Your task to perform on an android device: See recent photos Image 0: 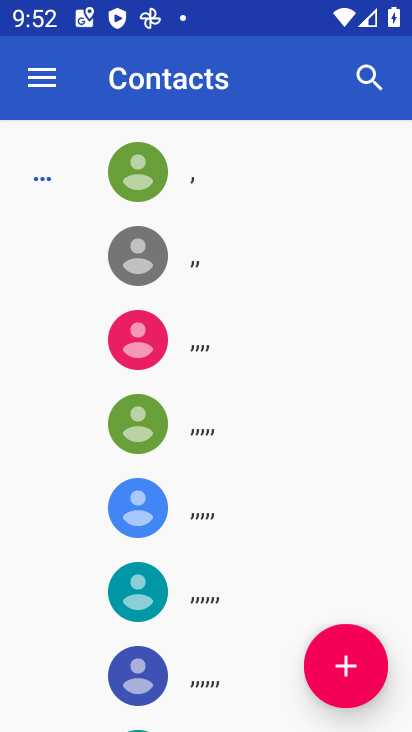
Step 0: press home button
Your task to perform on an android device: See recent photos Image 1: 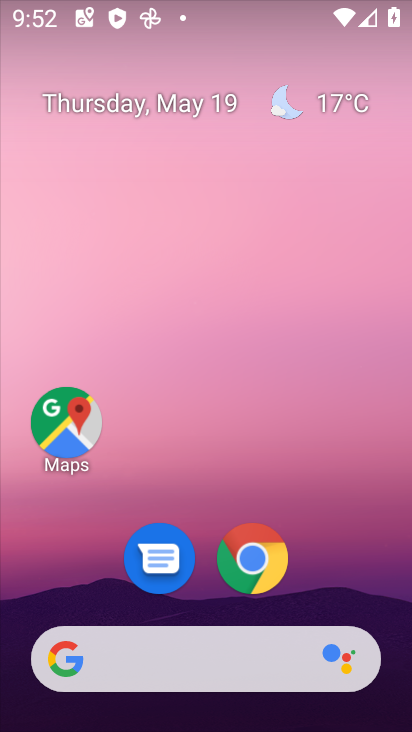
Step 1: drag from (204, 725) to (163, 187)
Your task to perform on an android device: See recent photos Image 2: 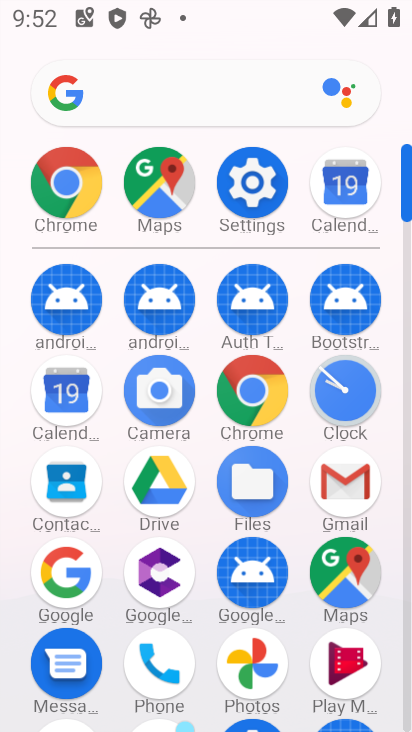
Step 2: click (254, 640)
Your task to perform on an android device: See recent photos Image 3: 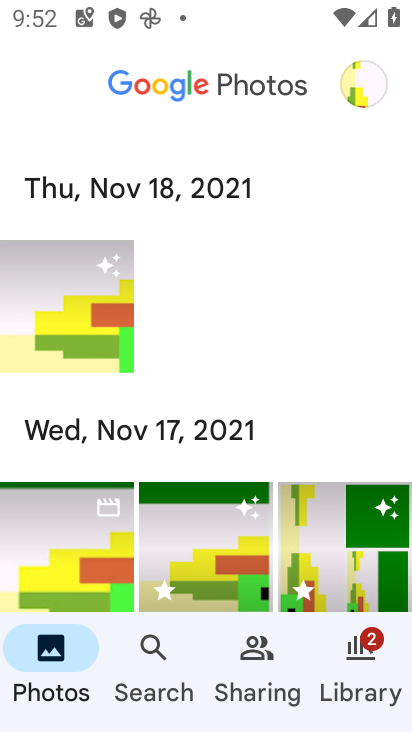
Step 3: click (61, 295)
Your task to perform on an android device: See recent photos Image 4: 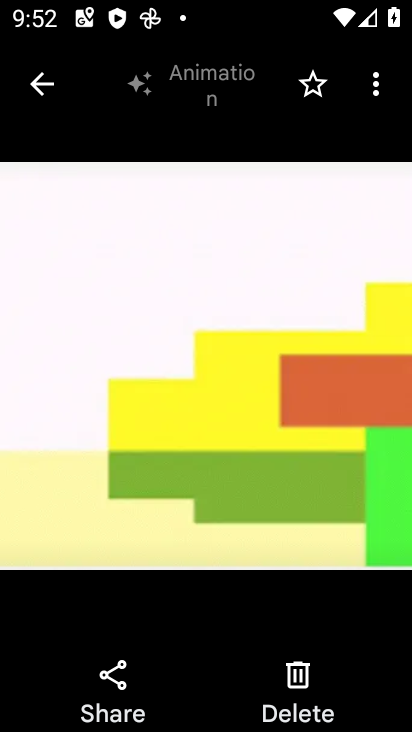
Step 4: task complete